Your task to perform on an android device: set default search engine in the chrome app Image 0: 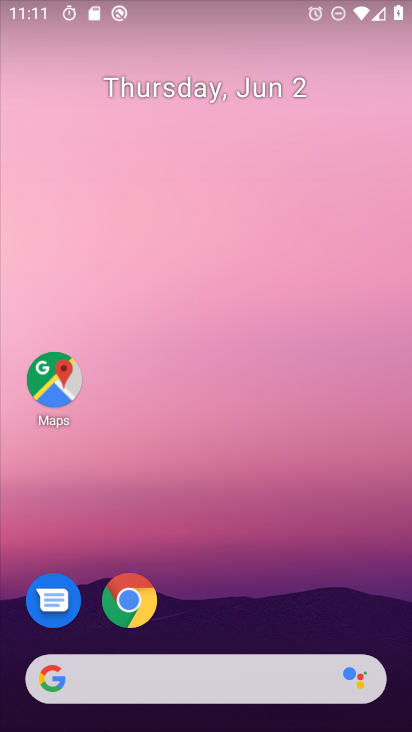
Step 0: click (132, 601)
Your task to perform on an android device: set default search engine in the chrome app Image 1: 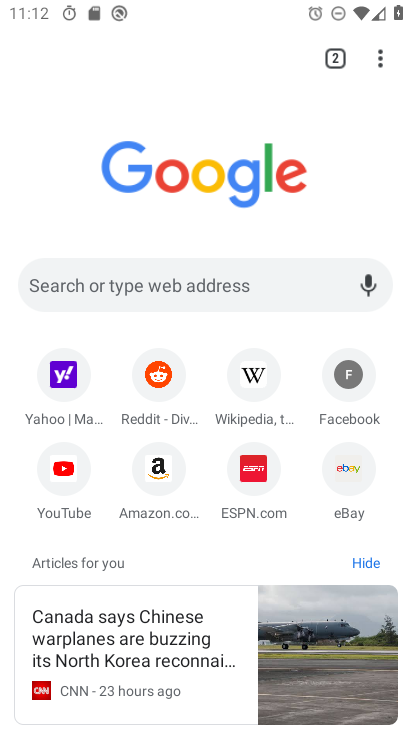
Step 1: click (366, 55)
Your task to perform on an android device: set default search engine in the chrome app Image 2: 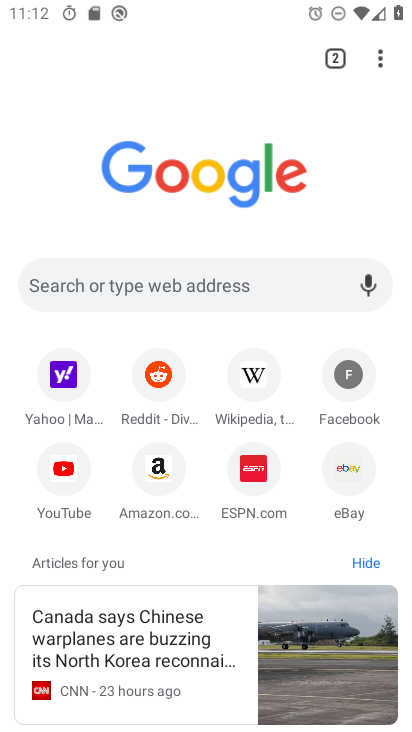
Step 2: click (370, 65)
Your task to perform on an android device: set default search engine in the chrome app Image 3: 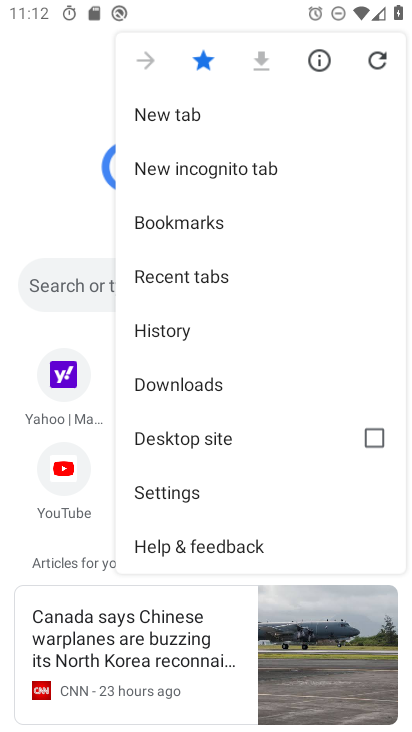
Step 3: click (195, 490)
Your task to perform on an android device: set default search engine in the chrome app Image 4: 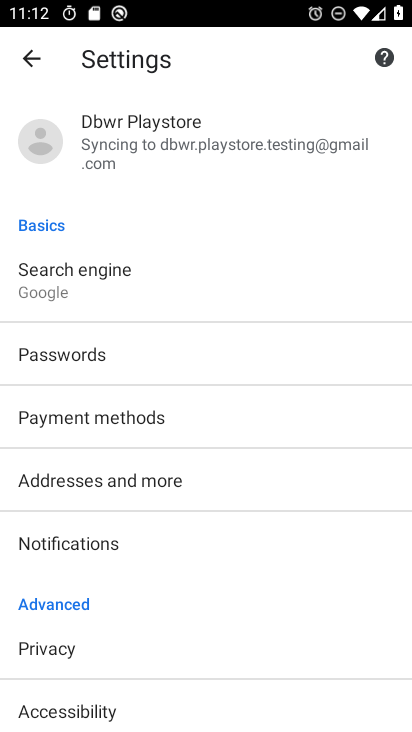
Step 4: drag from (133, 647) to (120, 552)
Your task to perform on an android device: set default search engine in the chrome app Image 5: 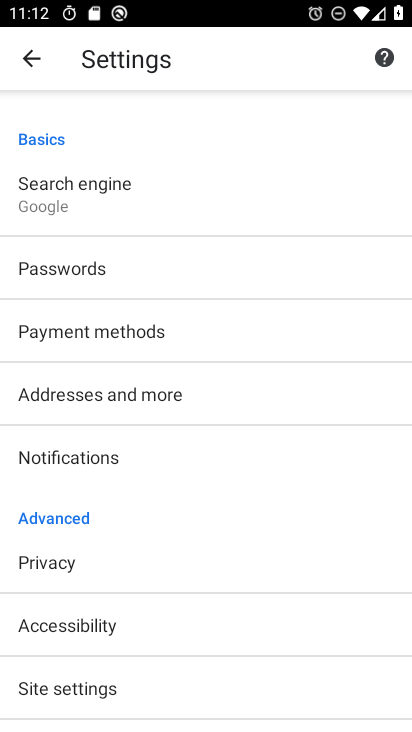
Step 5: click (106, 198)
Your task to perform on an android device: set default search engine in the chrome app Image 6: 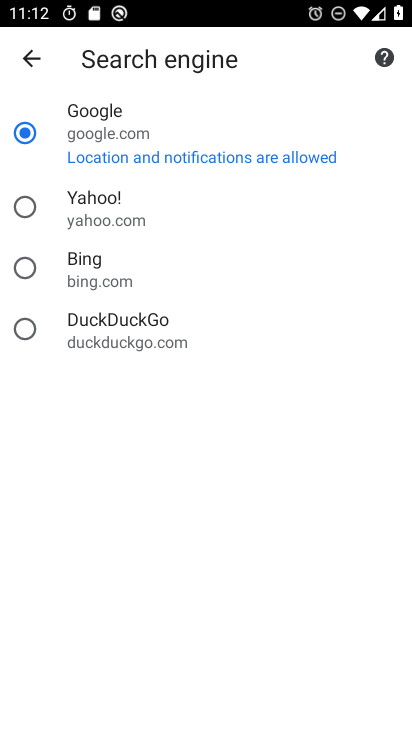
Step 6: click (20, 200)
Your task to perform on an android device: set default search engine in the chrome app Image 7: 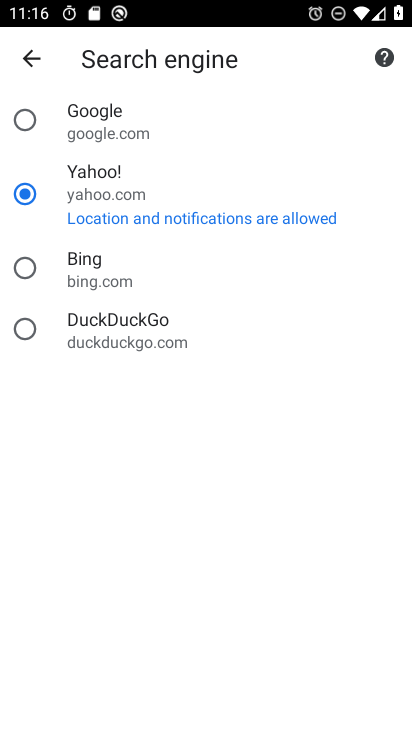
Step 7: task complete